Your task to perform on an android device: Go to wifi settings Image 0: 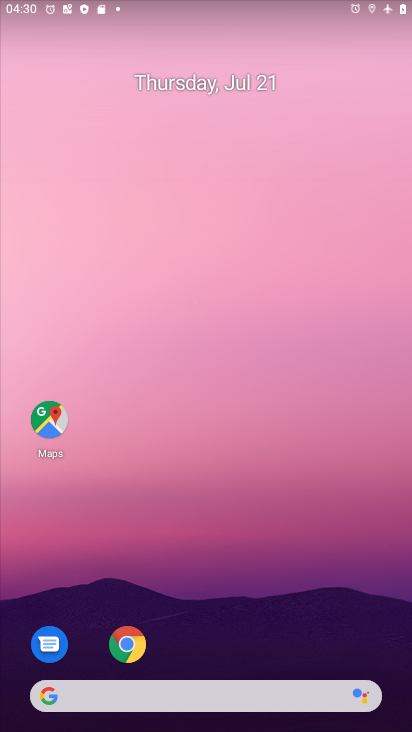
Step 0: drag from (267, 661) to (247, 1)
Your task to perform on an android device: Go to wifi settings Image 1: 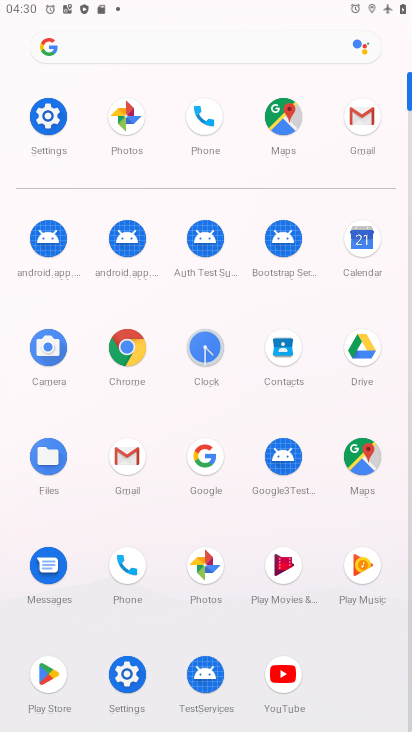
Step 1: click (47, 123)
Your task to perform on an android device: Go to wifi settings Image 2: 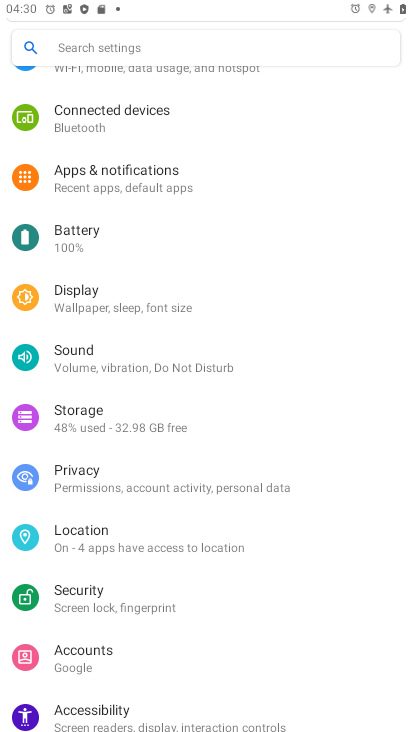
Step 2: drag from (317, 169) to (308, 438)
Your task to perform on an android device: Go to wifi settings Image 3: 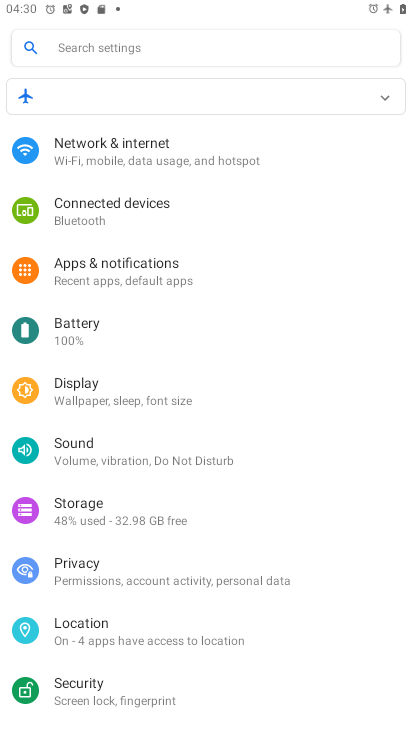
Step 3: click (127, 158)
Your task to perform on an android device: Go to wifi settings Image 4: 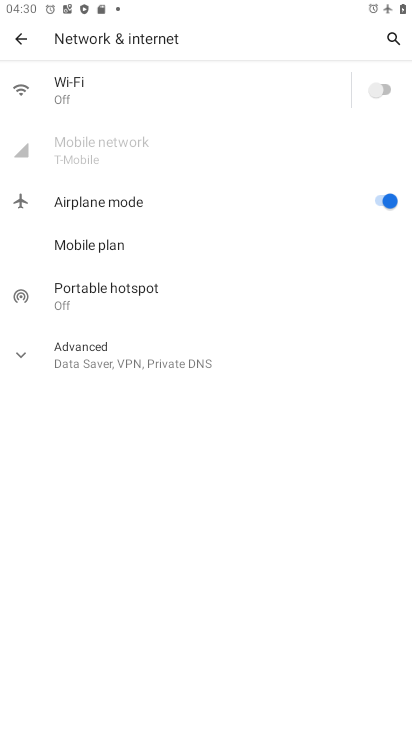
Step 4: click (65, 88)
Your task to perform on an android device: Go to wifi settings Image 5: 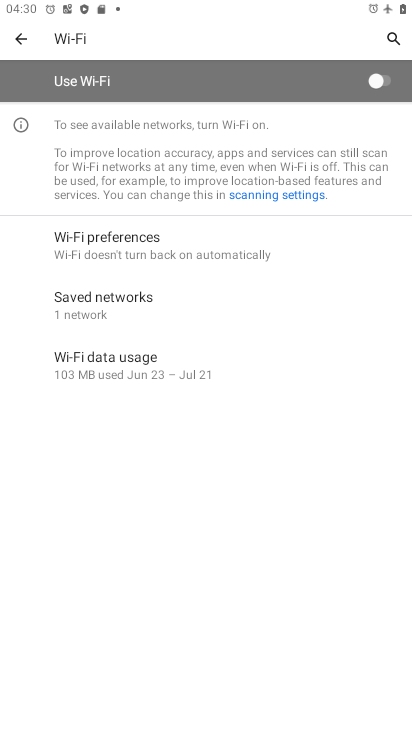
Step 5: task complete